Your task to perform on an android device: Empty the shopping cart on bestbuy. Search for alienware area 51 on bestbuy, select the first entry, add it to the cart, then select checkout. Image 0: 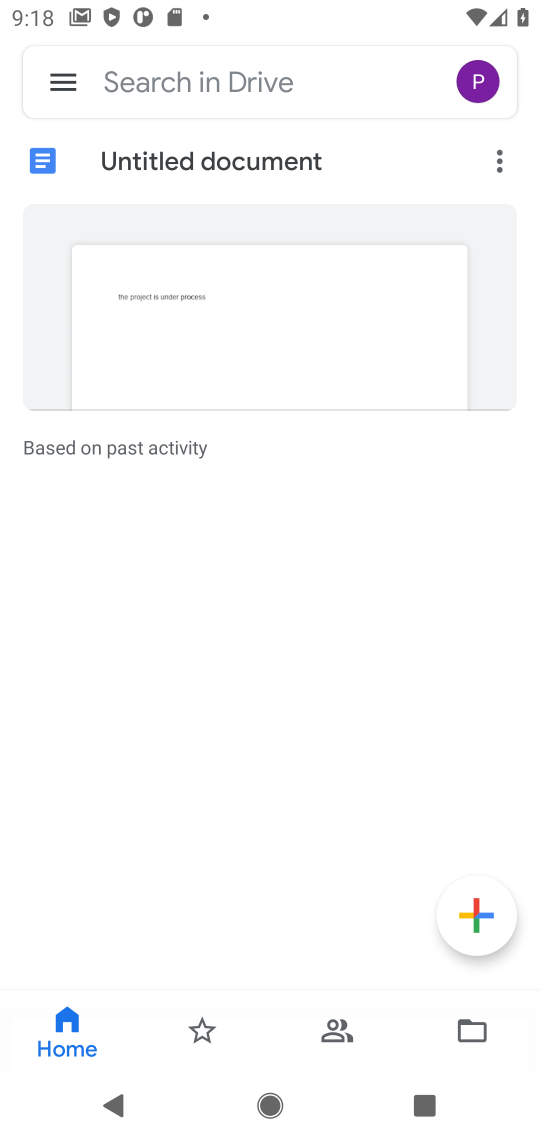
Step 0: press home button
Your task to perform on an android device: Empty the shopping cart on bestbuy. Search for alienware area 51 on bestbuy, select the first entry, add it to the cart, then select checkout. Image 1: 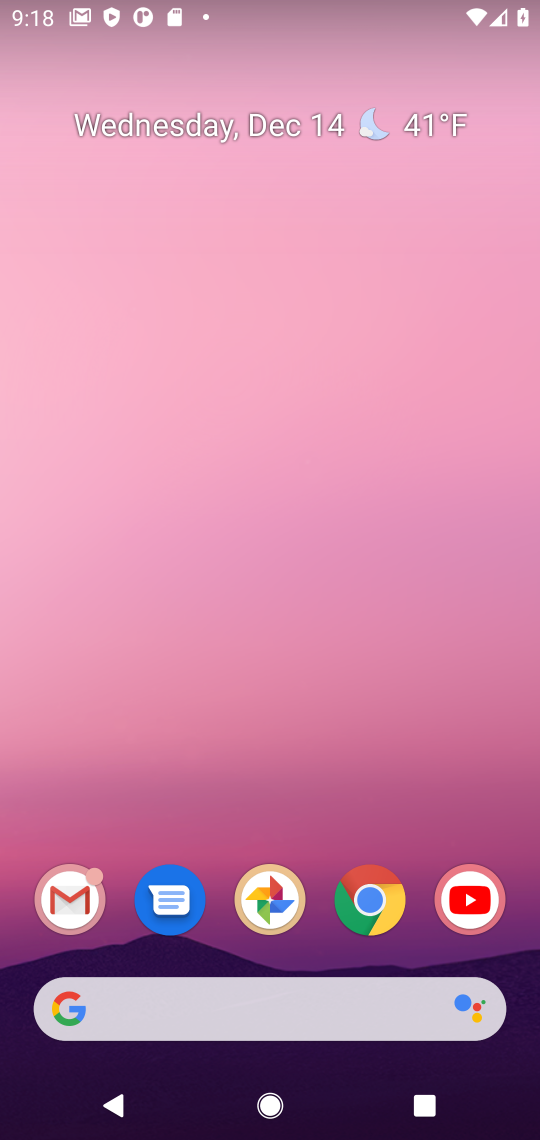
Step 1: click (372, 911)
Your task to perform on an android device: Empty the shopping cart on bestbuy. Search for alienware area 51 on bestbuy, select the first entry, add it to the cart, then select checkout. Image 2: 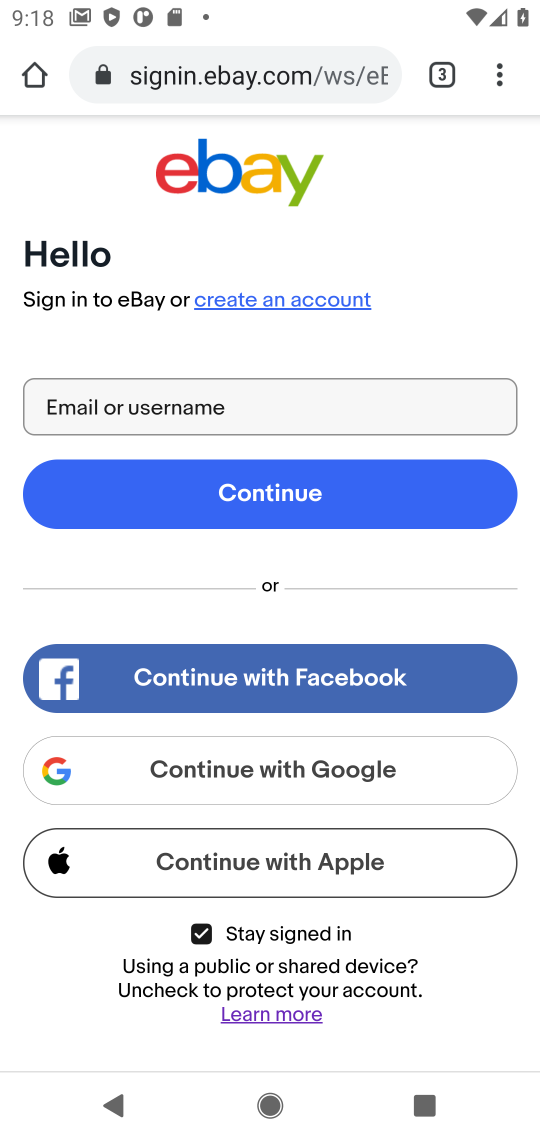
Step 2: click (202, 84)
Your task to perform on an android device: Empty the shopping cart on bestbuy. Search for alienware area 51 on bestbuy, select the first entry, add it to the cart, then select checkout. Image 3: 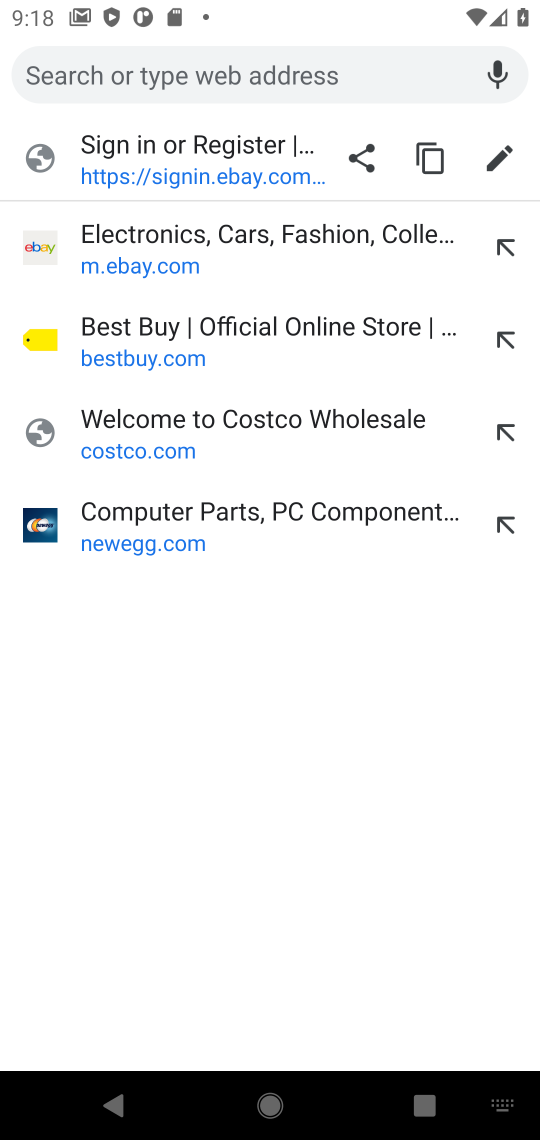
Step 3: click (150, 368)
Your task to perform on an android device: Empty the shopping cart on bestbuy. Search for alienware area 51 on bestbuy, select the first entry, add it to the cart, then select checkout. Image 4: 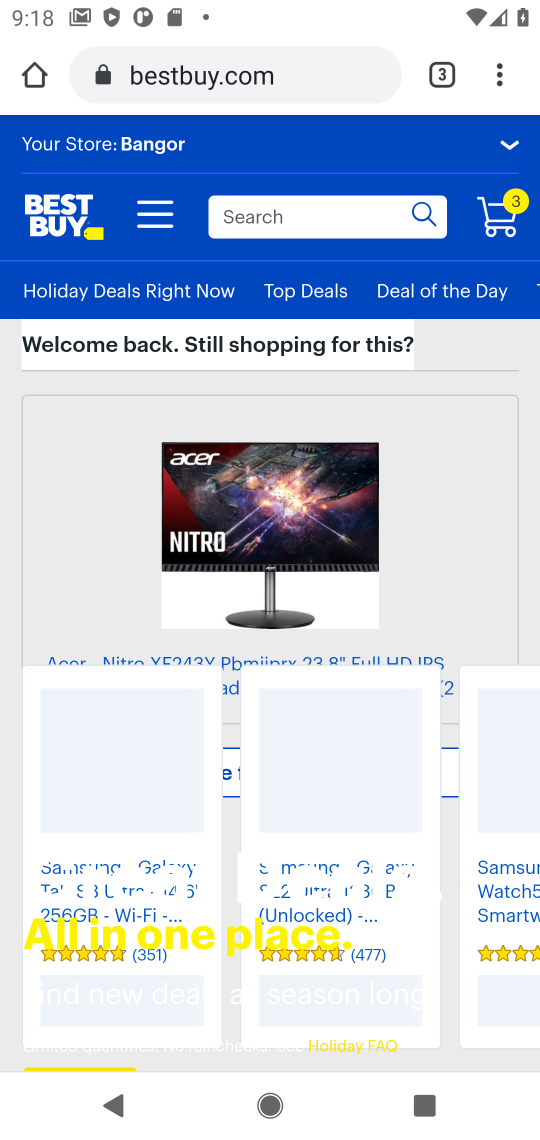
Step 4: click (508, 224)
Your task to perform on an android device: Empty the shopping cart on bestbuy. Search for alienware area 51 on bestbuy, select the first entry, add it to the cart, then select checkout. Image 5: 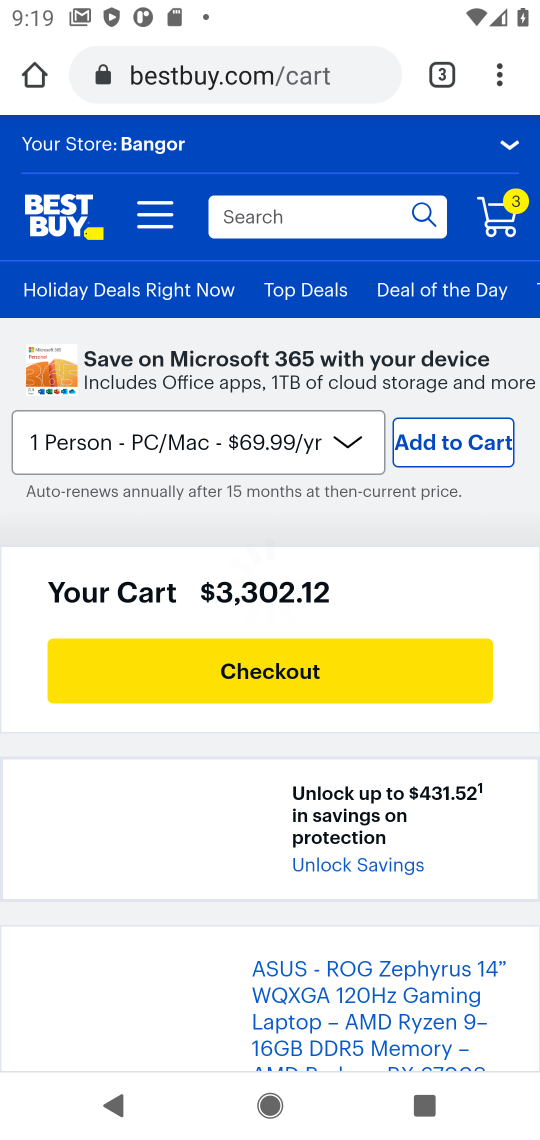
Step 5: drag from (203, 645) to (232, 355)
Your task to perform on an android device: Empty the shopping cart on bestbuy. Search for alienware area 51 on bestbuy, select the first entry, add it to the cart, then select checkout. Image 6: 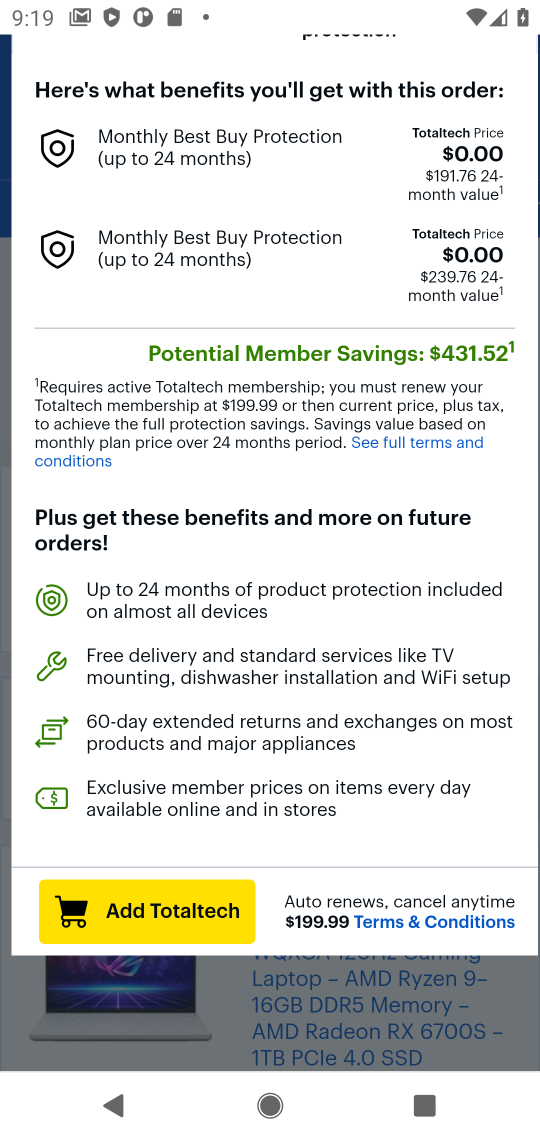
Step 6: drag from (446, 182) to (449, 367)
Your task to perform on an android device: Empty the shopping cart on bestbuy. Search for alienware area 51 on bestbuy, select the first entry, add it to the cart, then select checkout. Image 7: 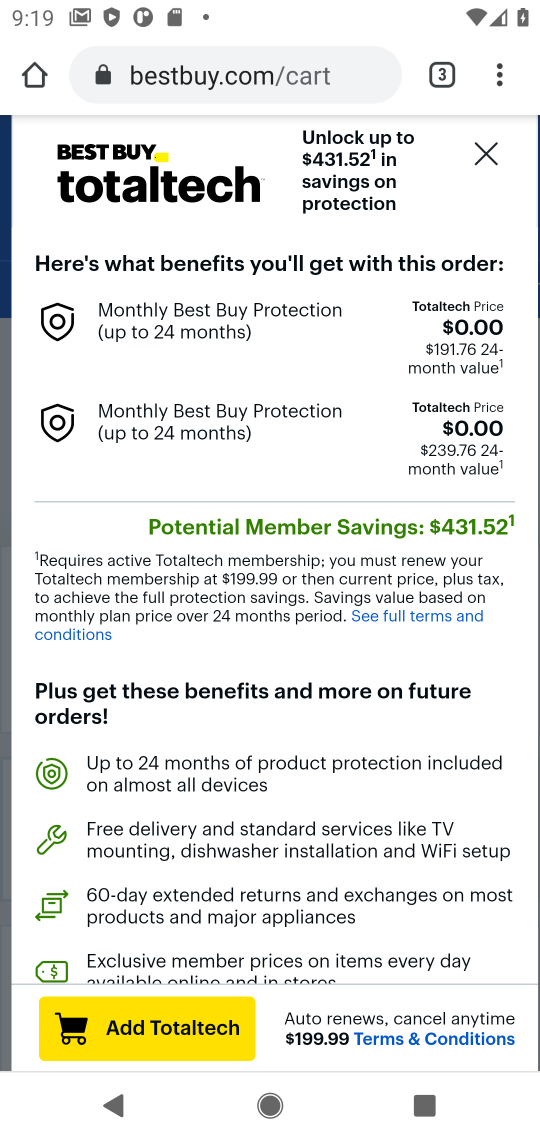
Step 7: click (481, 166)
Your task to perform on an android device: Empty the shopping cart on bestbuy. Search for alienware area 51 on bestbuy, select the first entry, add it to the cart, then select checkout. Image 8: 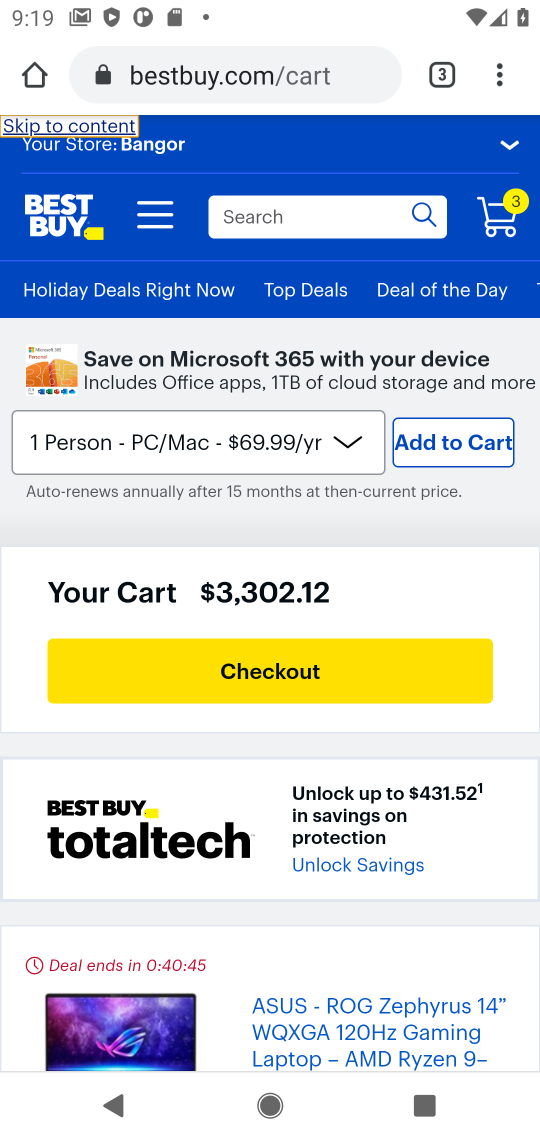
Step 8: drag from (308, 678) to (337, 326)
Your task to perform on an android device: Empty the shopping cart on bestbuy. Search for alienware area 51 on bestbuy, select the first entry, add it to the cart, then select checkout. Image 9: 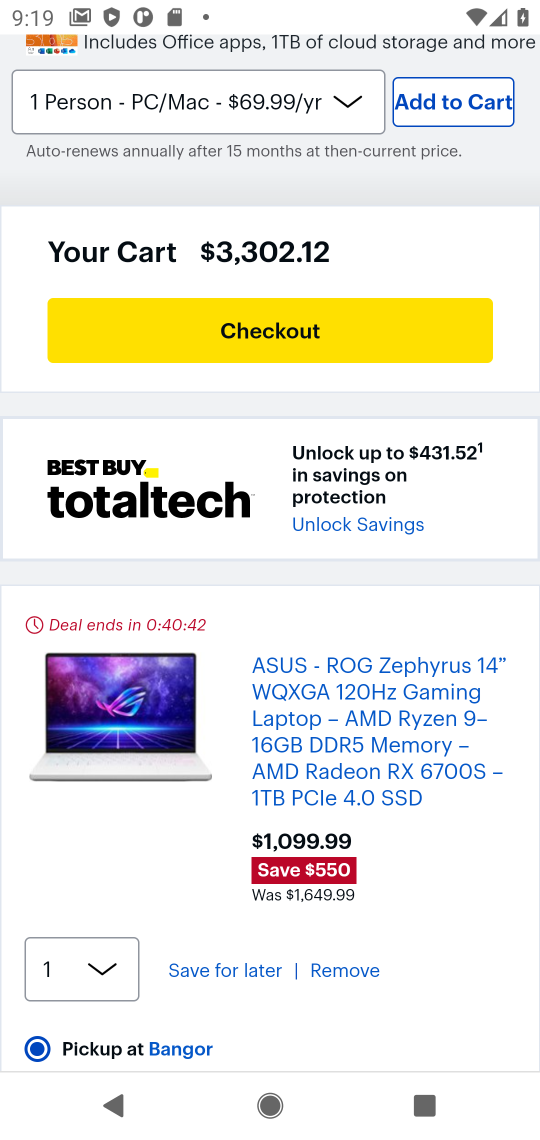
Step 9: click (332, 972)
Your task to perform on an android device: Empty the shopping cart on bestbuy. Search for alienware area 51 on bestbuy, select the first entry, add it to the cart, then select checkout. Image 10: 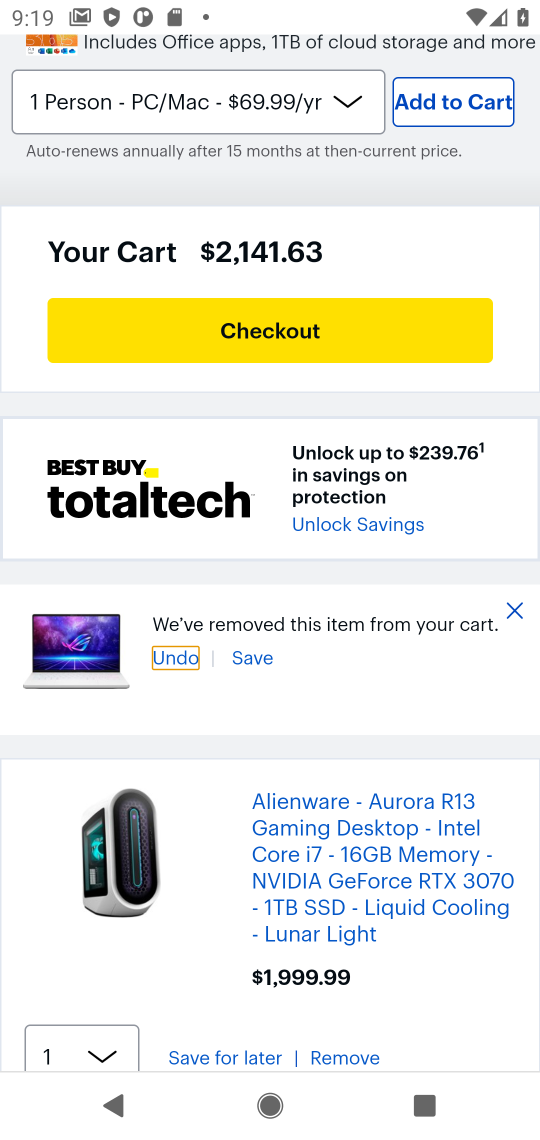
Step 10: drag from (374, 991) to (384, 626)
Your task to perform on an android device: Empty the shopping cart on bestbuy. Search for alienware area 51 on bestbuy, select the first entry, add it to the cart, then select checkout. Image 11: 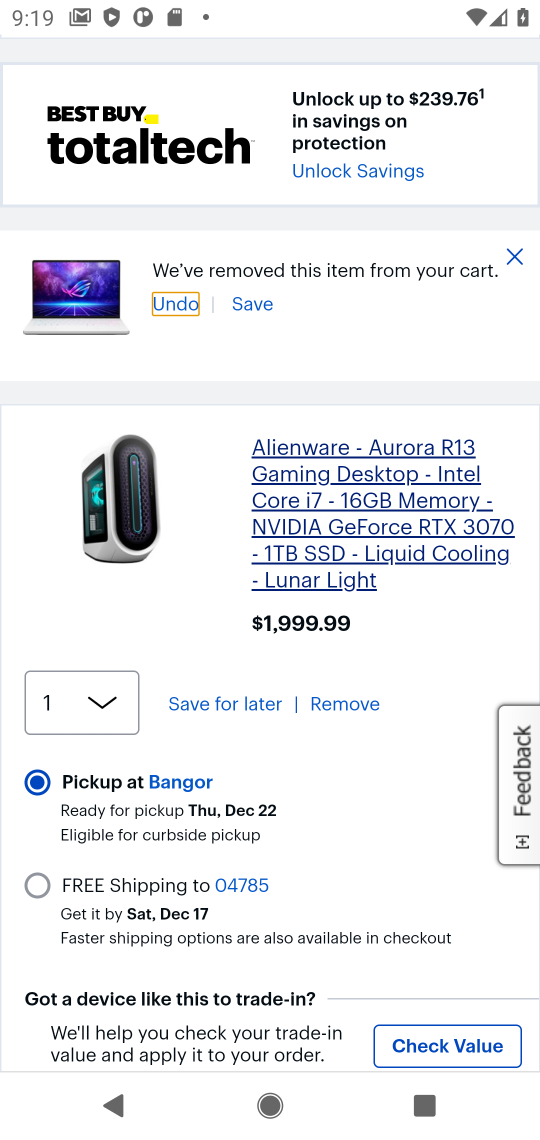
Step 11: click (338, 704)
Your task to perform on an android device: Empty the shopping cart on bestbuy. Search for alienware area 51 on bestbuy, select the first entry, add it to the cart, then select checkout. Image 12: 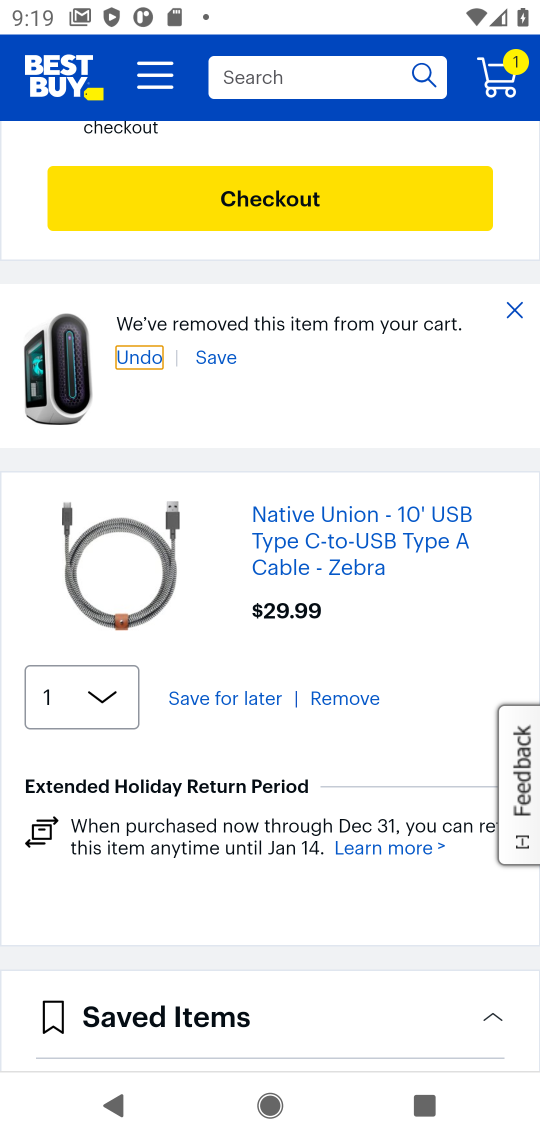
Step 12: click (338, 704)
Your task to perform on an android device: Empty the shopping cart on bestbuy. Search for alienware area 51 on bestbuy, select the first entry, add it to the cart, then select checkout. Image 13: 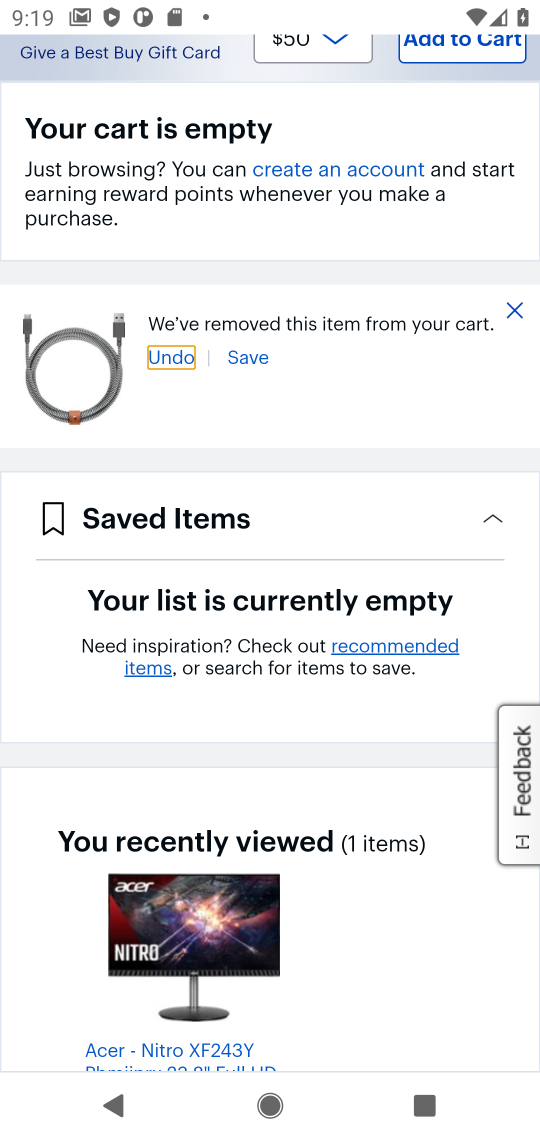
Step 13: drag from (386, 488) to (310, 982)
Your task to perform on an android device: Empty the shopping cart on bestbuy. Search for alienware area 51 on bestbuy, select the first entry, add it to the cart, then select checkout. Image 14: 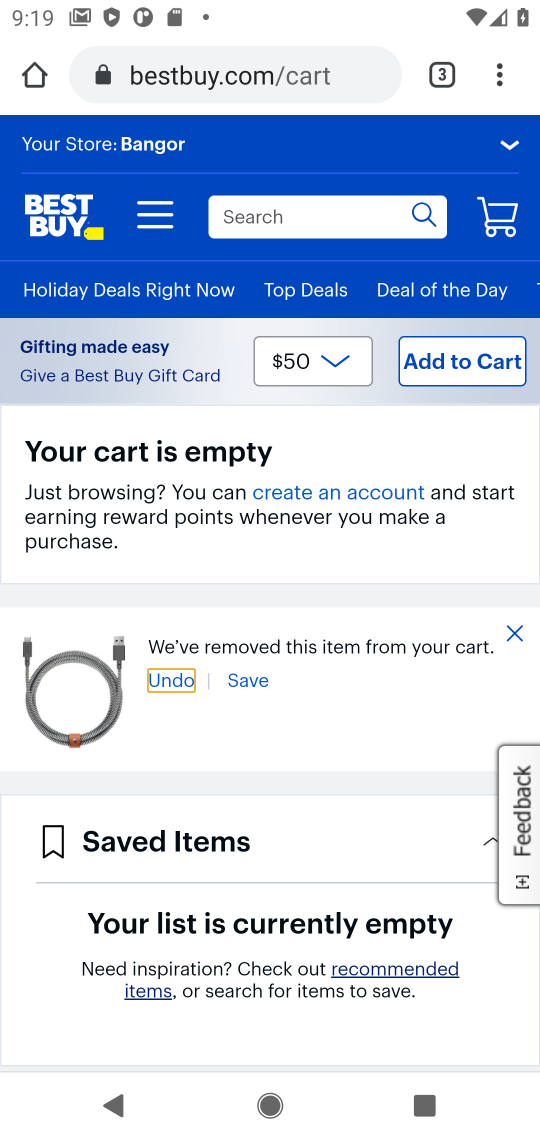
Step 14: click (246, 221)
Your task to perform on an android device: Empty the shopping cart on bestbuy. Search for alienware area 51 on bestbuy, select the first entry, add it to the cart, then select checkout. Image 15: 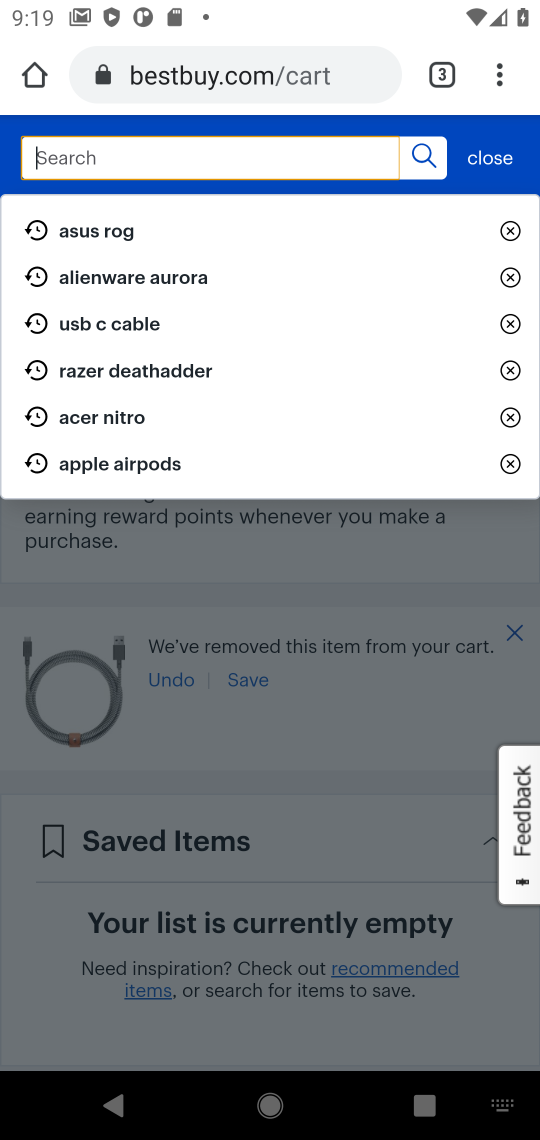
Step 15: type "alienware area 51 "
Your task to perform on an android device: Empty the shopping cart on bestbuy. Search for alienware area 51 on bestbuy, select the first entry, add it to the cart, then select checkout. Image 16: 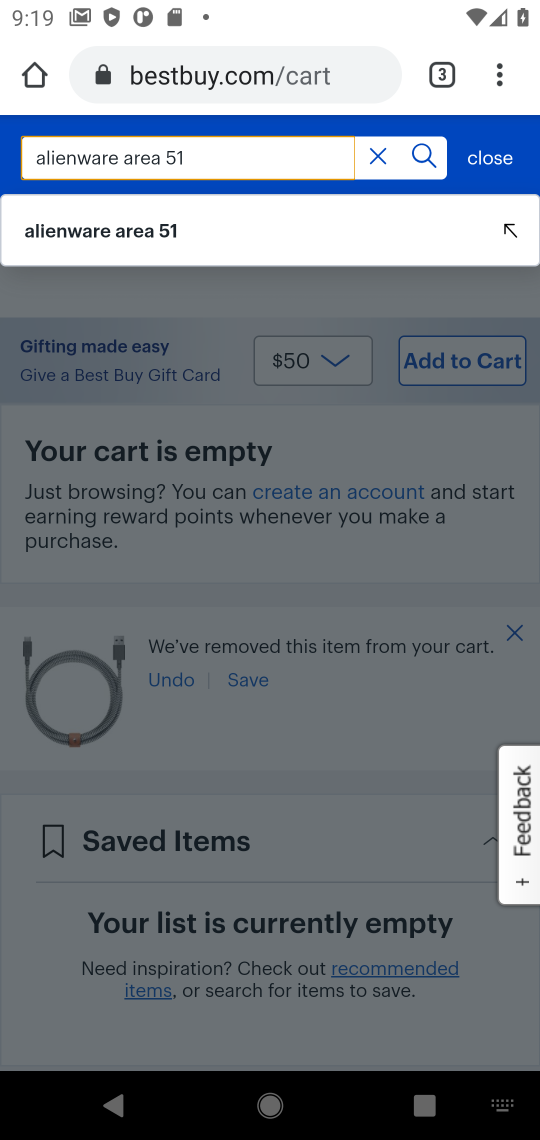
Step 16: click (76, 233)
Your task to perform on an android device: Empty the shopping cart on bestbuy. Search for alienware area 51 on bestbuy, select the first entry, add it to the cart, then select checkout. Image 17: 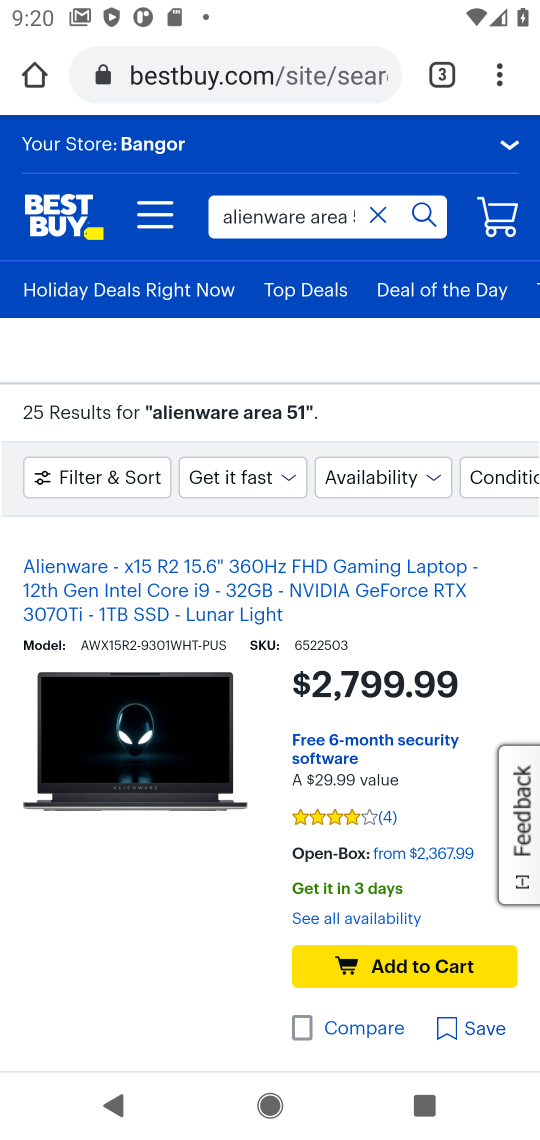
Step 17: task complete